Your task to perform on an android device: turn off location Image 0: 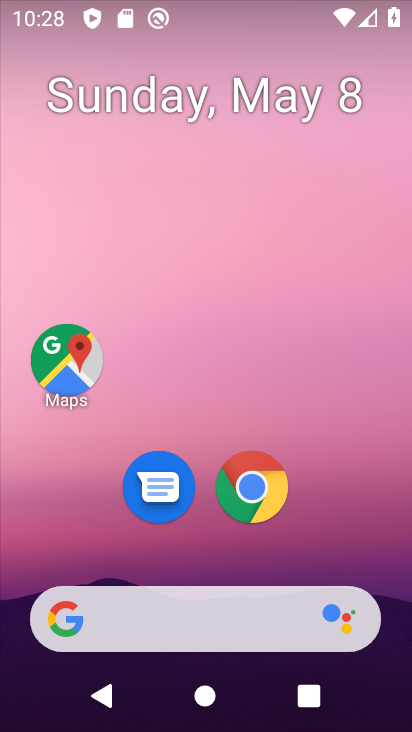
Step 0: drag from (202, 485) to (265, 37)
Your task to perform on an android device: turn off location Image 1: 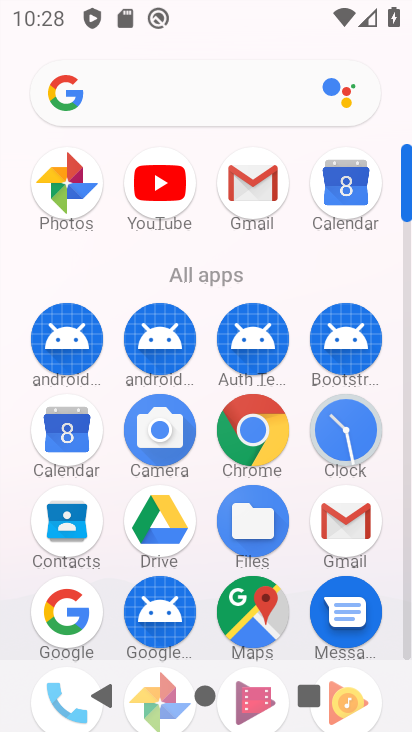
Step 1: drag from (216, 619) to (301, 79)
Your task to perform on an android device: turn off location Image 2: 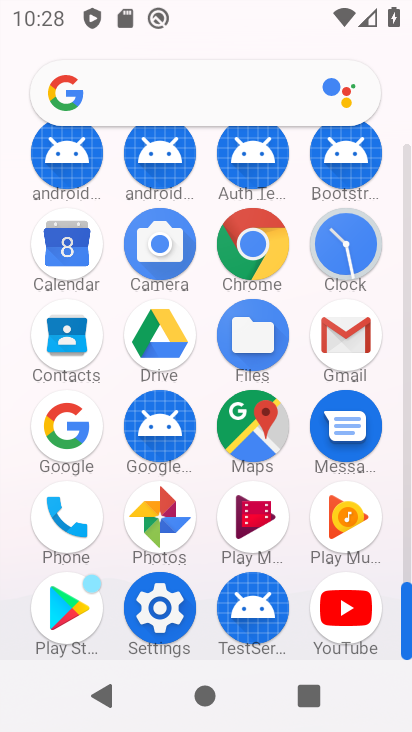
Step 2: click (160, 591)
Your task to perform on an android device: turn off location Image 3: 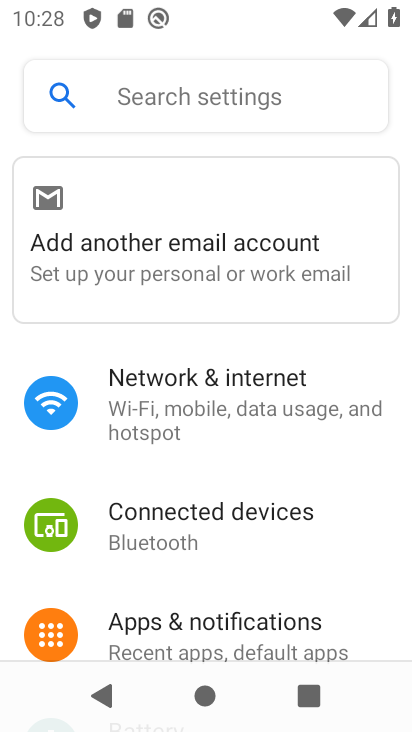
Step 3: drag from (214, 602) to (331, 61)
Your task to perform on an android device: turn off location Image 4: 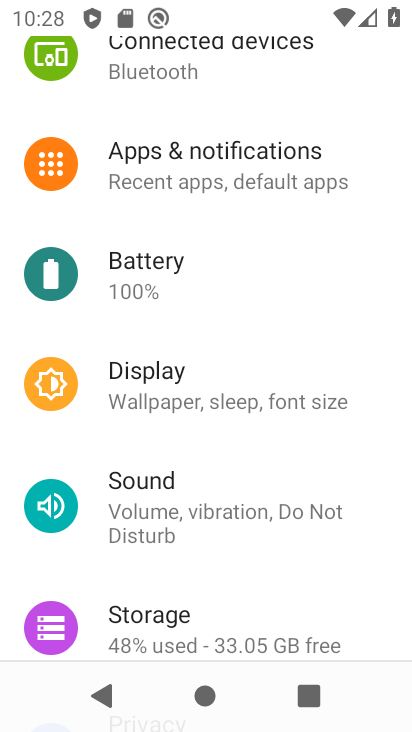
Step 4: drag from (143, 587) to (307, 68)
Your task to perform on an android device: turn off location Image 5: 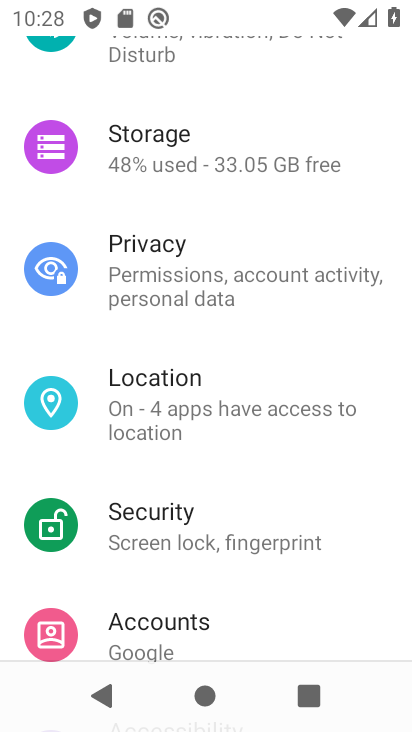
Step 5: click (163, 392)
Your task to perform on an android device: turn off location Image 6: 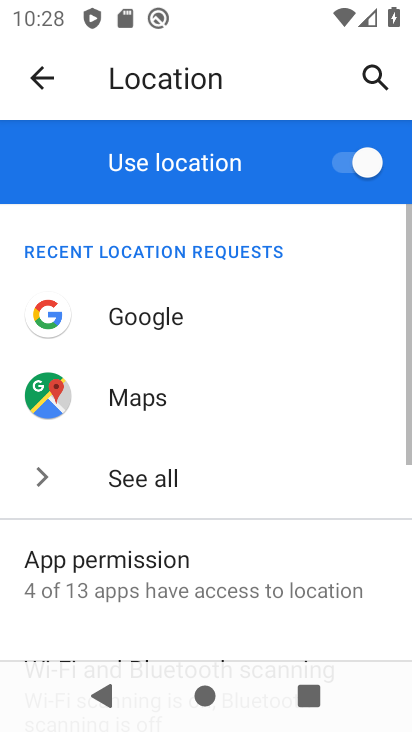
Step 6: click (359, 170)
Your task to perform on an android device: turn off location Image 7: 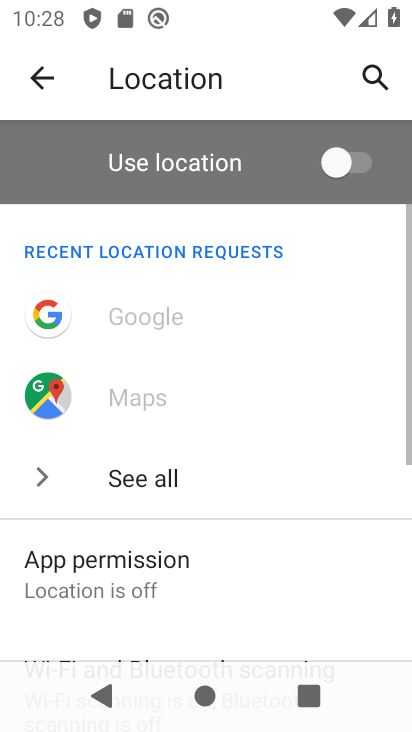
Step 7: task complete